Your task to perform on an android device: open sync settings in chrome Image 0: 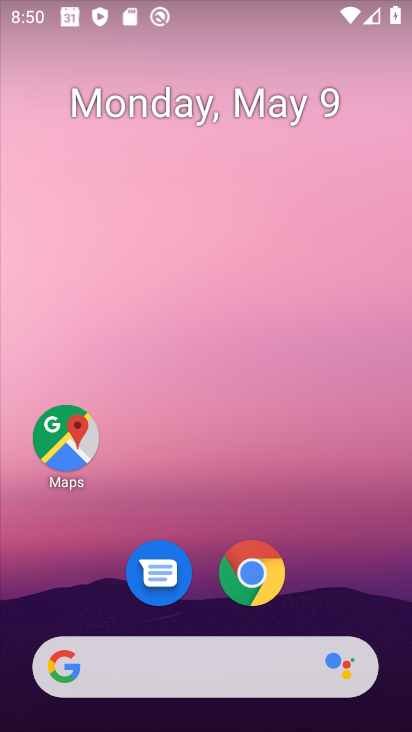
Step 0: click (258, 577)
Your task to perform on an android device: open sync settings in chrome Image 1: 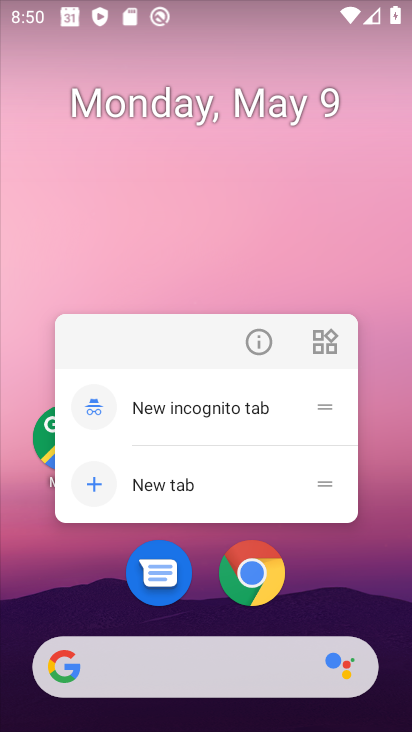
Step 1: click (258, 577)
Your task to perform on an android device: open sync settings in chrome Image 2: 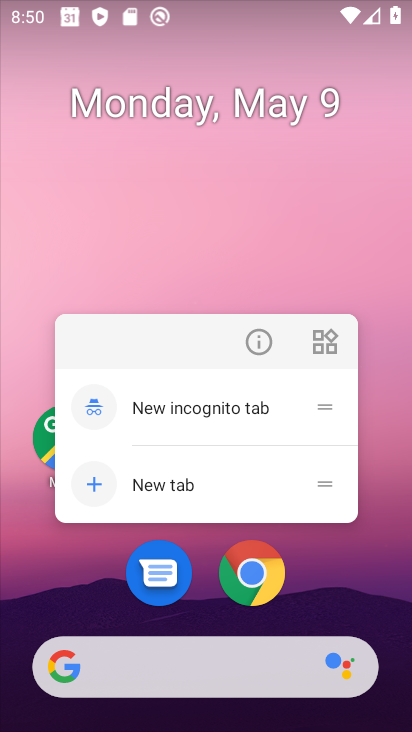
Step 2: click (255, 576)
Your task to perform on an android device: open sync settings in chrome Image 3: 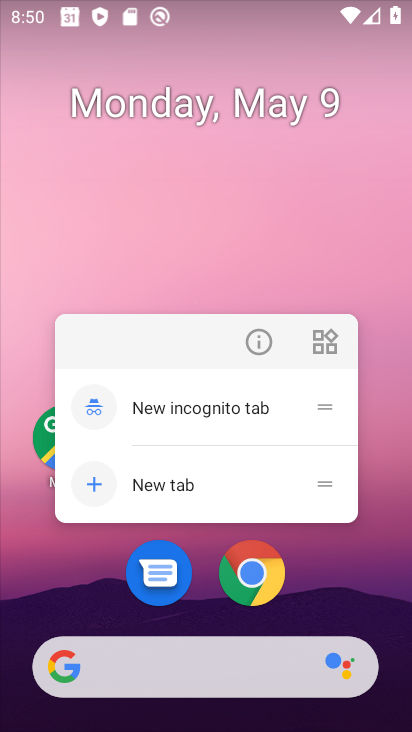
Step 3: click (255, 576)
Your task to perform on an android device: open sync settings in chrome Image 4: 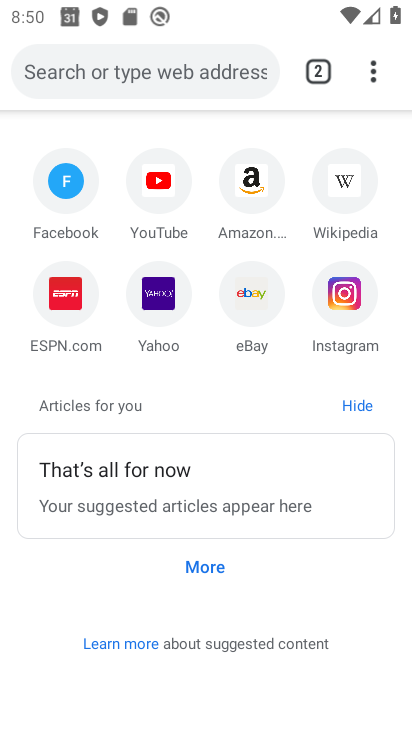
Step 4: click (375, 76)
Your task to perform on an android device: open sync settings in chrome Image 5: 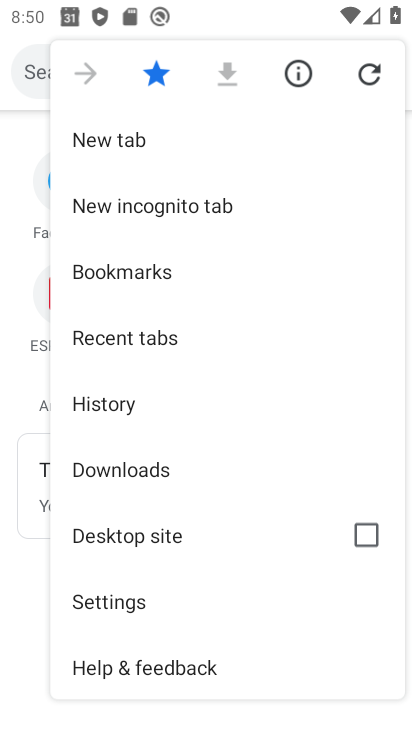
Step 5: click (173, 601)
Your task to perform on an android device: open sync settings in chrome Image 6: 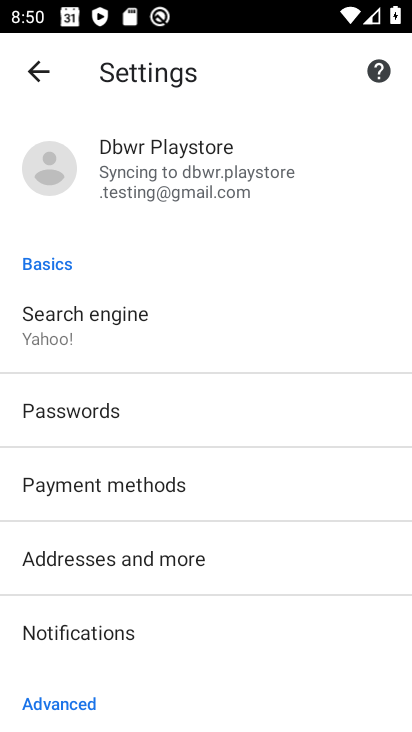
Step 6: click (221, 165)
Your task to perform on an android device: open sync settings in chrome Image 7: 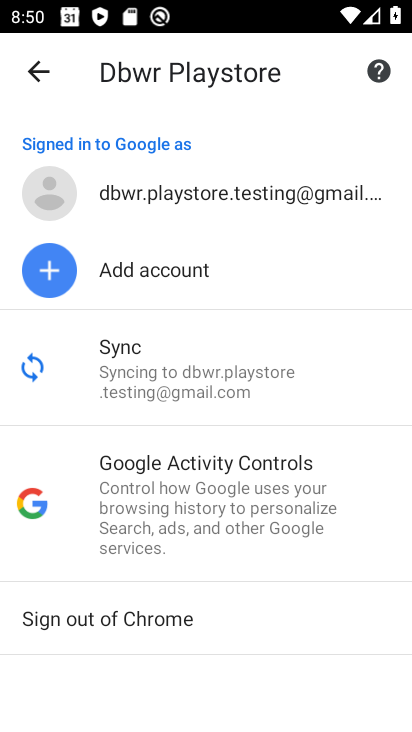
Step 7: click (169, 415)
Your task to perform on an android device: open sync settings in chrome Image 8: 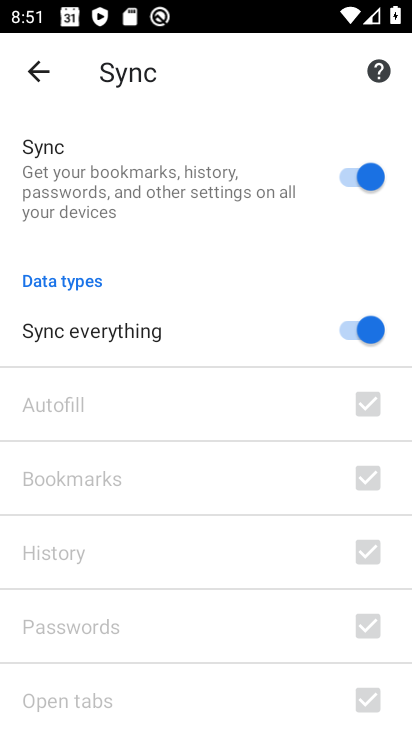
Step 8: task complete